Your task to perform on an android device: Open the map Image 0: 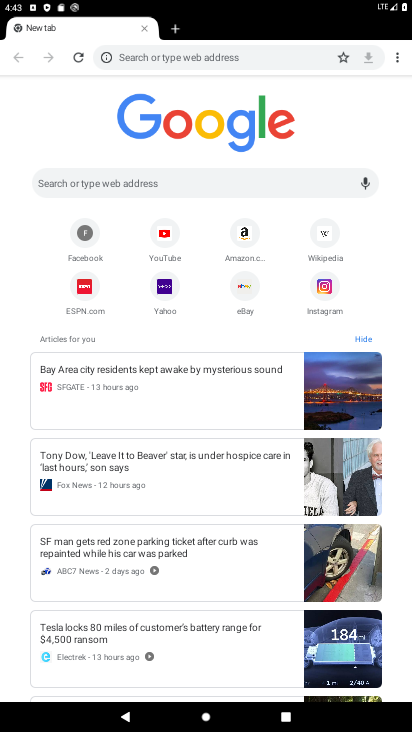
Step 0: press home button
Your task to perform on an android device: Open the map Image 1: 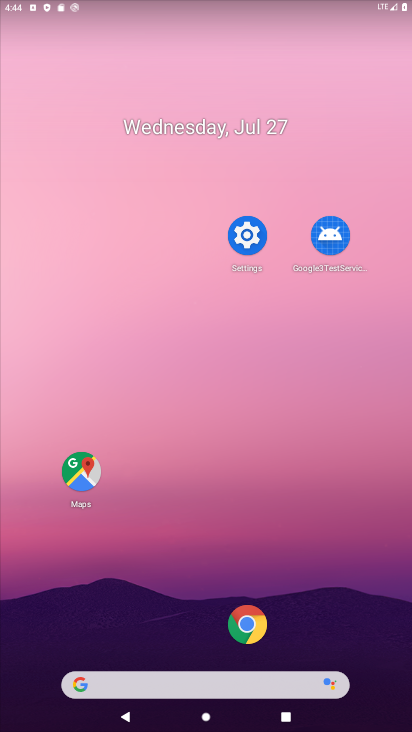
Step 1: click (53, 486)
Your task to perform on an android device: Open the map Image 2: 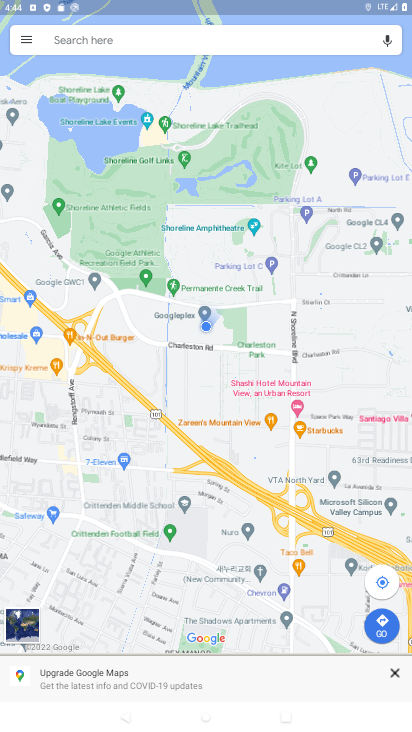
Step 2: task complete